Your task to perform on an android device: toggle translation in the chrome app Image 0: 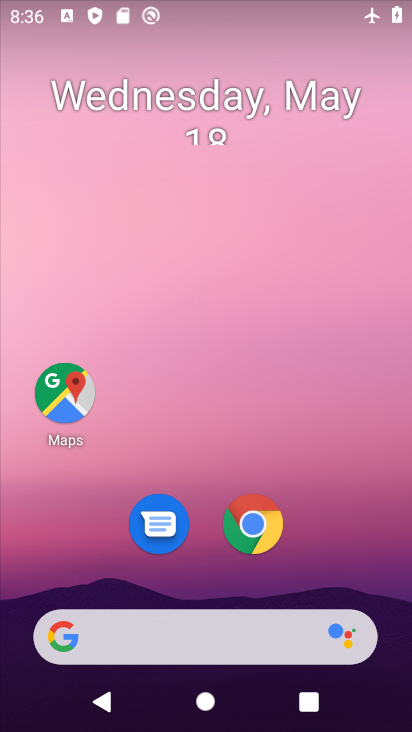
Step 0: click (266, 535)
Your task to perform on an android device: toggle translation in the chrome app Image 1: 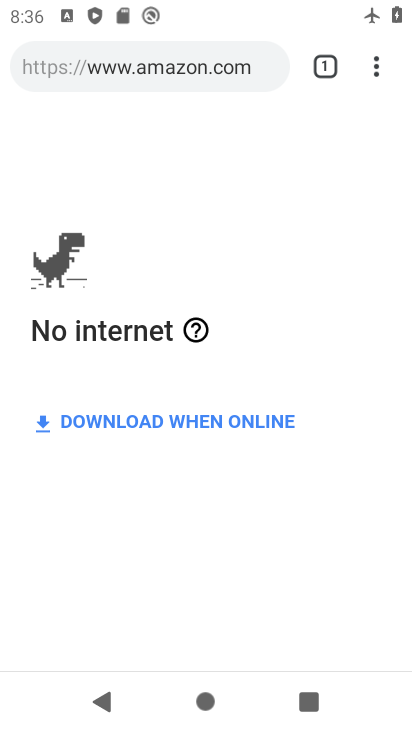
Step 1: click (380, 64)
Your task to perform on an android device: toggle translation in the chrome app Image 2: 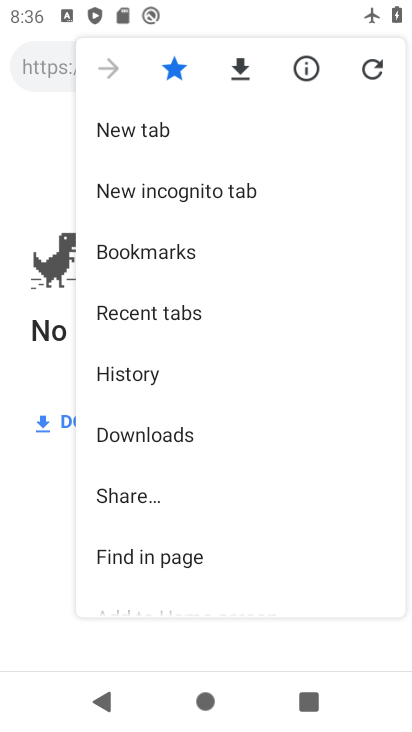
Step 2: drag from (273, 479) to (243, 217)
Your task to perform on an android device: toggle translation in the chrome app Image 3: 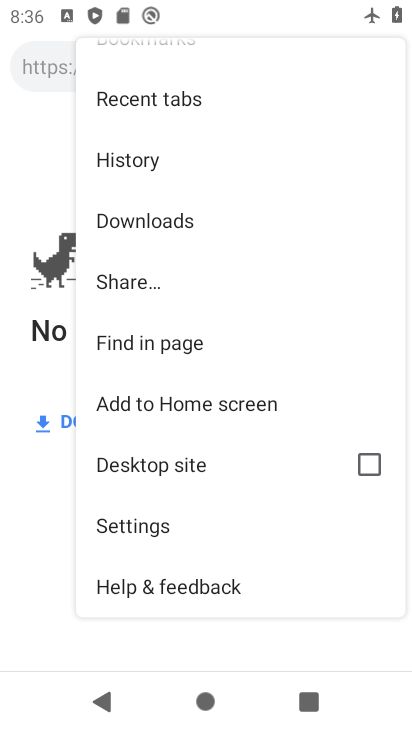
Step 3: click (230, 523)
Your task to perform on an android device: toggle translation in the chrome app Image 4: 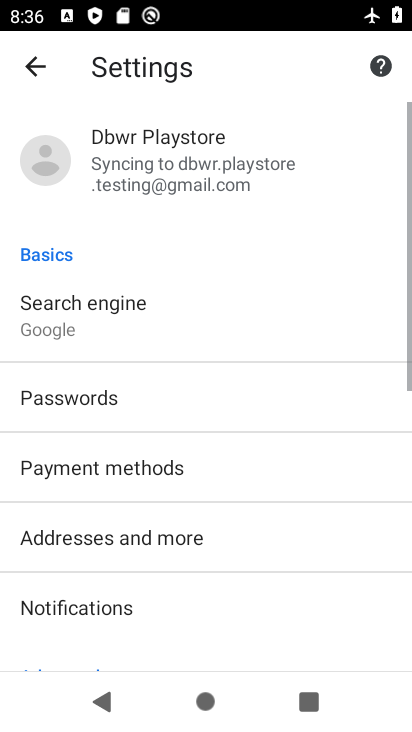
Step 4: drag from (230, 521) to (217, 78)
Your task to perform on an android device: toggle translation in the chrome app Image 5: 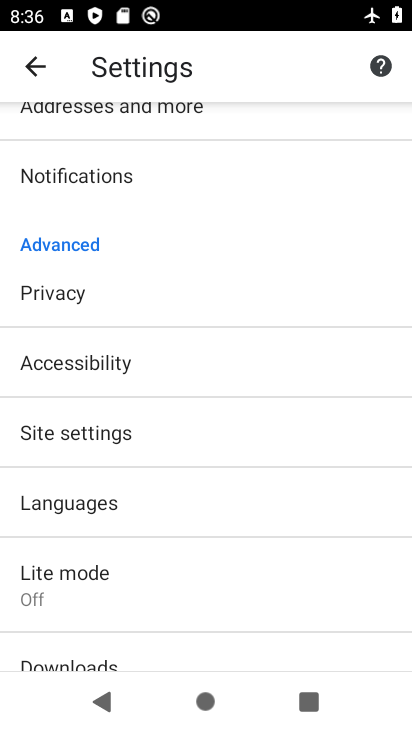
Step 5: click (202, 505)
Your task to perform on an android device: toggle translation in the chrome app Image 6: 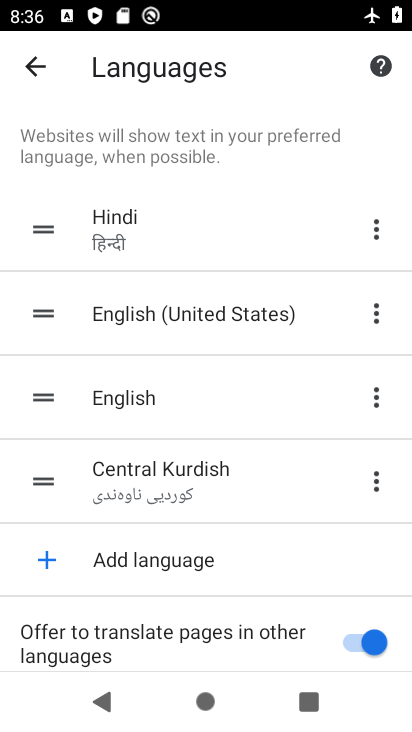
Step 6: click (357, 628)
Your task to perform on an android device: toggle translation in the chrome app Image 7: 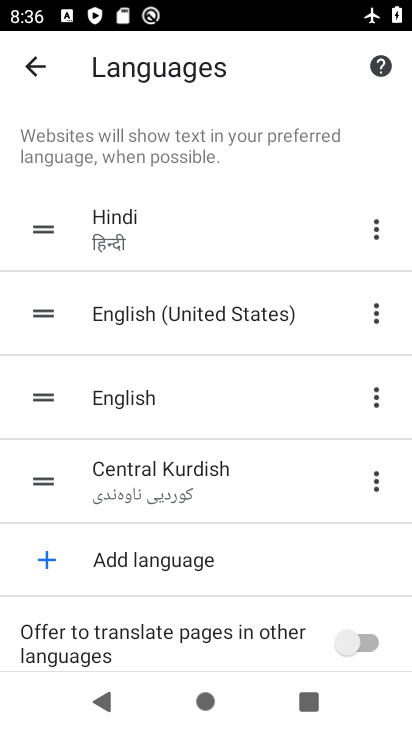
Step 7: task complete